Your task to perform on an android device: What's on my calendar tomorrow? Image 0: 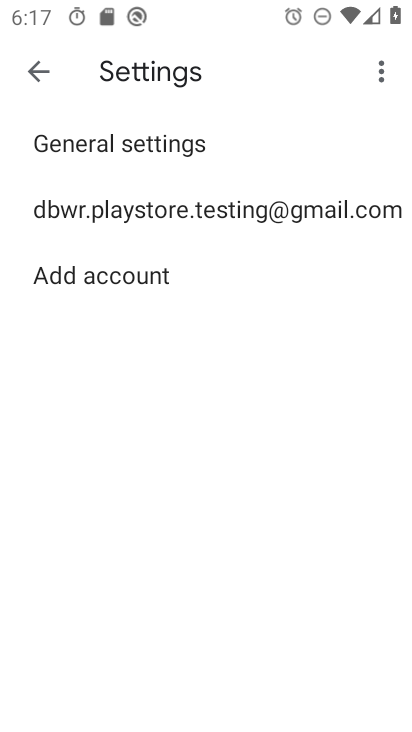
Step 0: press back button
Your task to perform on an android device: What's on my calendar tomorrow? Image 1: 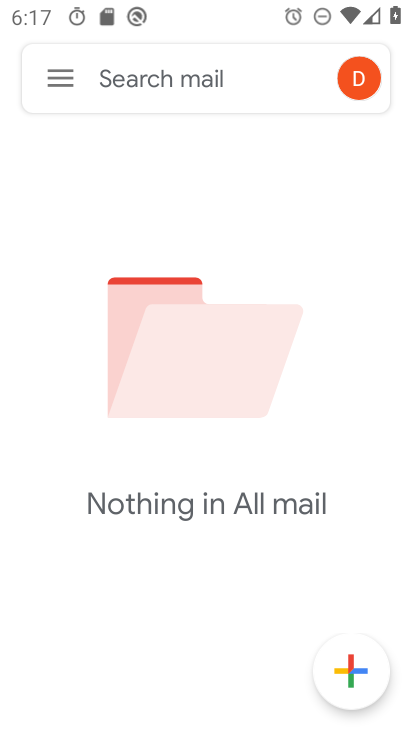
Step 1: press back button
Your task to perform on an android device: What's on my calendar tomorrow? Image 2: 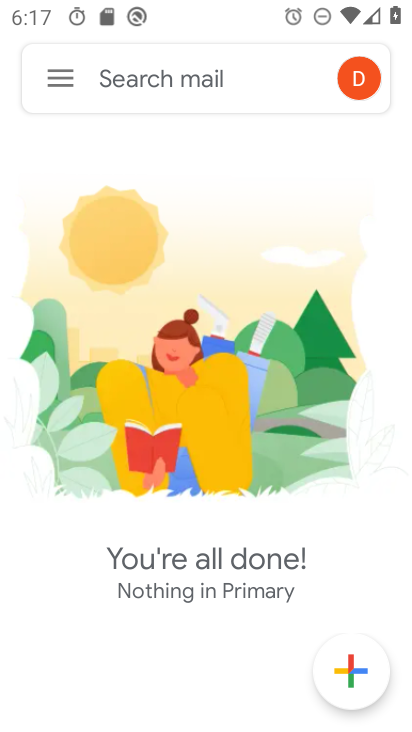
Step 2: press back button
Your task to perform on an android device: What's on my calendar tomorrow? Image 3: 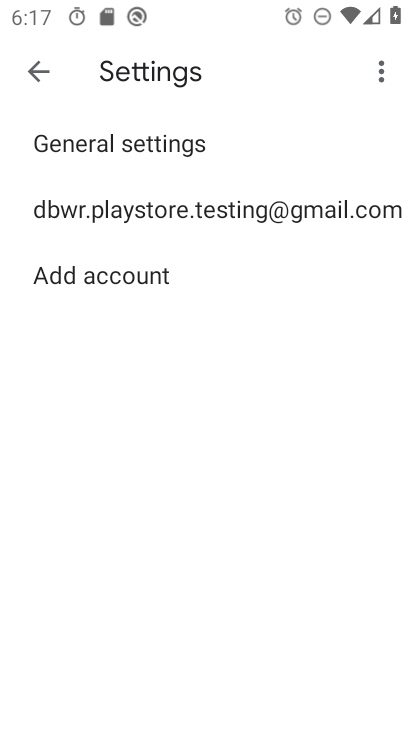
Step 3: press back button
Your task to perform on an android device: What's on my calendar tomorrow? Image 4: 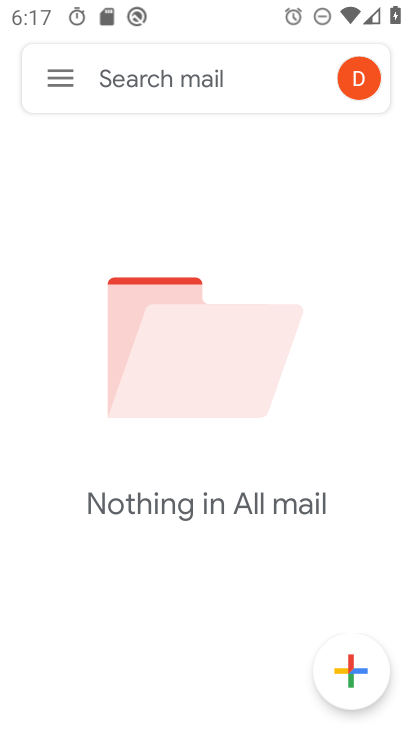
Step 4: press back button
Your task to perform on an android device: What's on my calendar tomorrow? Image 5: 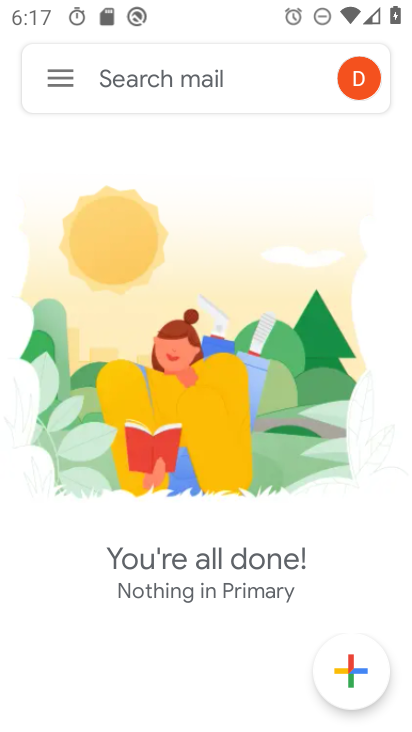
Step 5: press back button
Your task to perform on an android device: What's on my calendar tomorrow? Image 6: 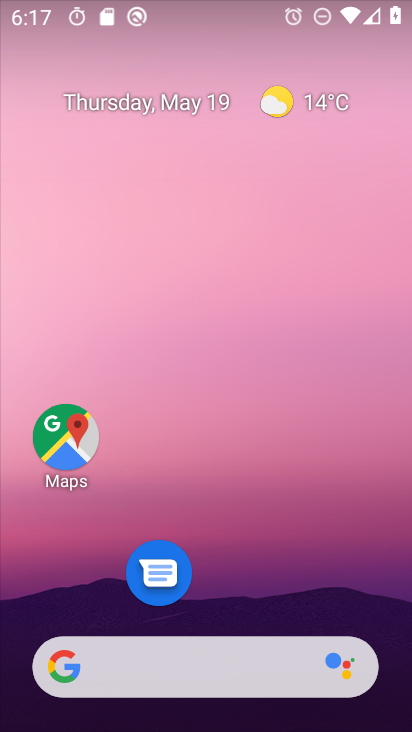
Step 6: click (299, 193)
Your task to perform on an android device: What's on my calendar tomorrow? Image 7: 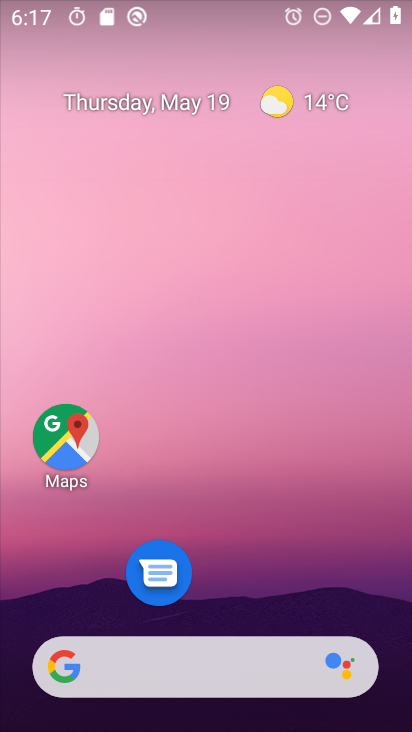
Step 7: drag from (246, 576) to (279, 9)
Your task to perform on an android device: What's on my calendar tomorrow? Image 8: 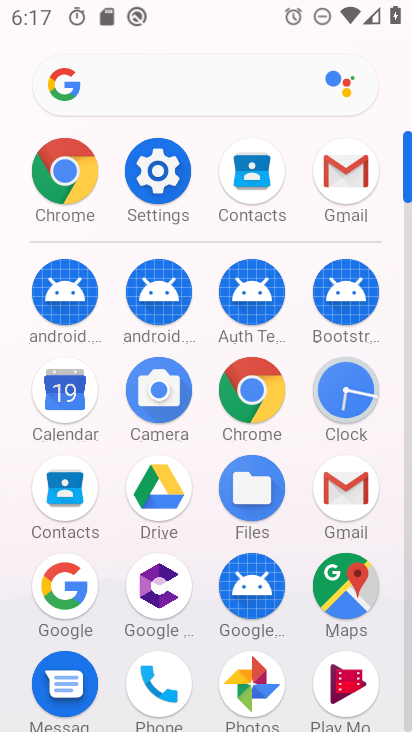
Step 8: drag from (256, 547) to (216, 264)
Your task to perform on an android device: What's on my calendar tomorrow? Image 9: 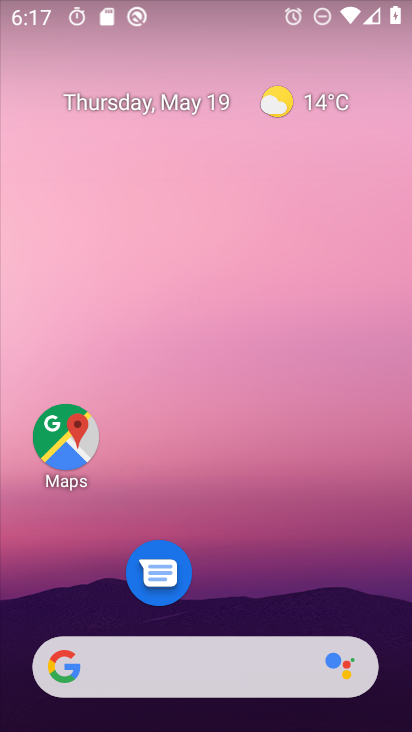
Step 9: drag from (266, 607) to (271, 2)
Your task to perform on an android device: What's on my calendar tomorrow? Image 10: 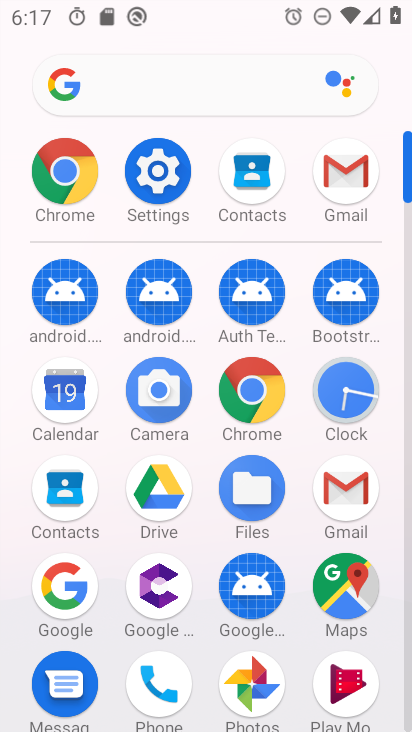
Step 10: click (65, 419)
Your task to perform on an android device: What's on my calendar tomorrow? Image 11: 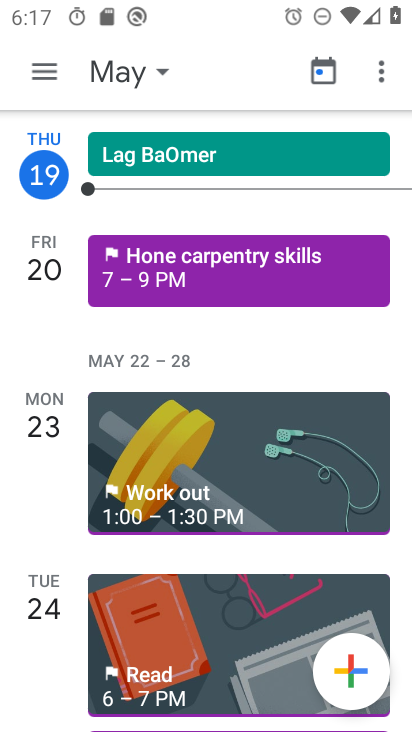
Step 11: task complete